Your task to perform on an android device: Open Yahoo.com Image 0: 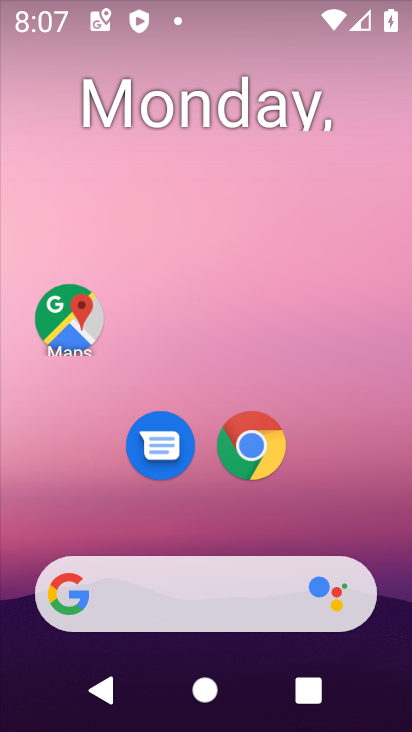
Step 0: click (138, 598)
Your task to perform on an android device: Open Yahoo.com Image 1: 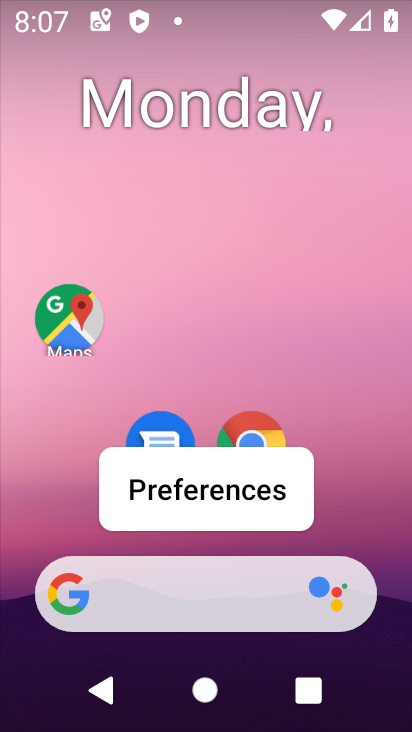
Step 1: click (175, 591)
Your task to perform on an android device: Open Yahoo.com Image 2: 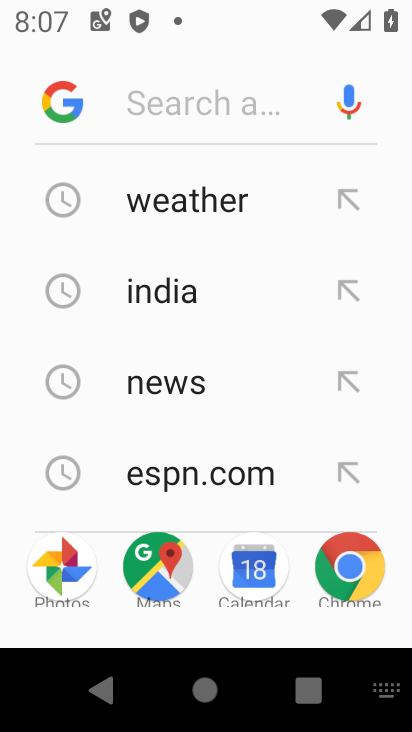
Step 2: type "Yahoo.com"
Your task to perform on an android device: Open Yahoo.com Image 3: 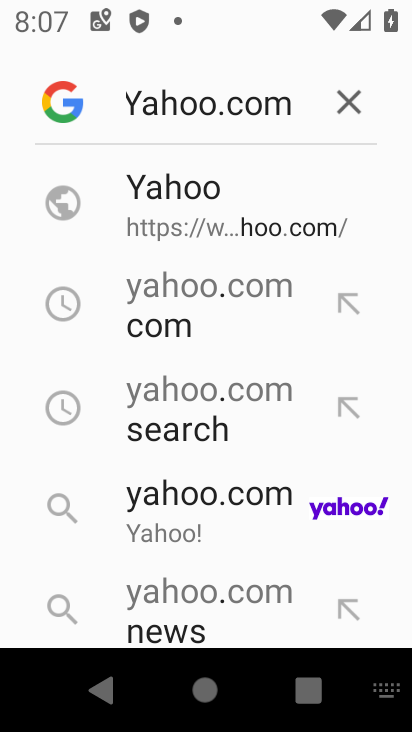
Step 3: click (202, 218)
Your task to perform on an android device: Open Yahoo.com Image 4: 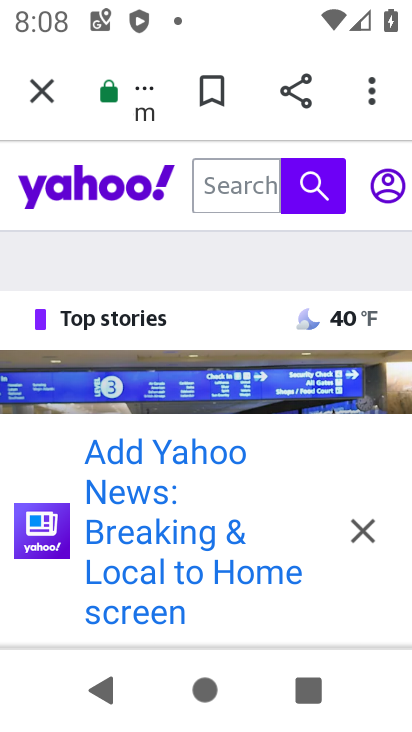
Step 4: click (361, 534)
Your task to perform on an android device: Open Yahoo.com Image 5: 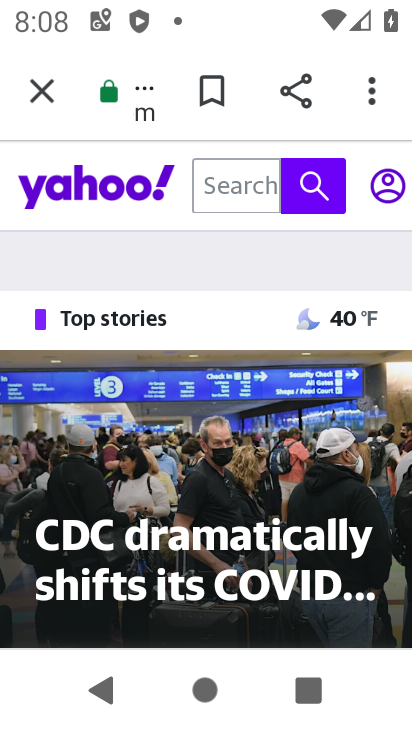
Step 5: task complete